Your task to perform on an android device: search for starred emails in the gmail app Image 0: 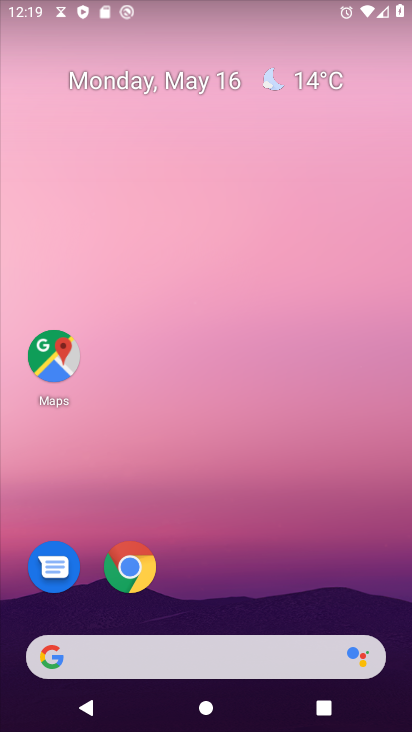
Step 0: drag from (252, 596) to (337, 23)
Your task to perform on an android device: search for starred emails in the gmail app Image 1: 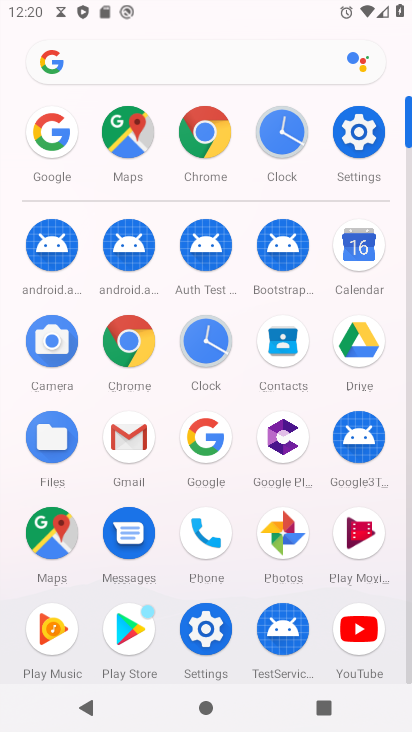
Step 1: click (123, 441)
Your task to perform on an android device: search for starred emails in the gmail app Image 2: 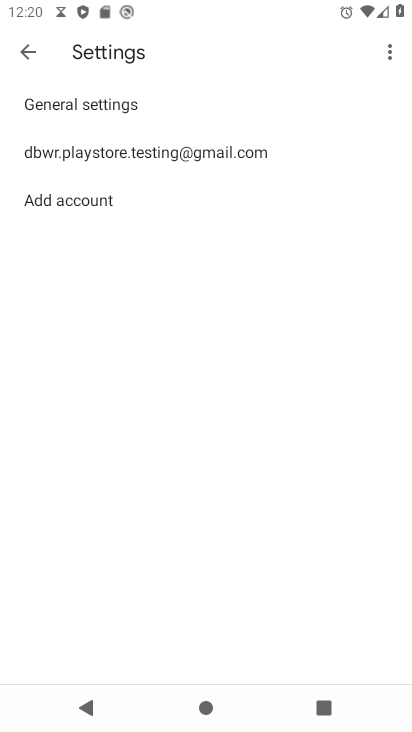
Step 2: click (22, 51)
Your task to perform on an android device: search for starred emails in the gmail app Image 3: 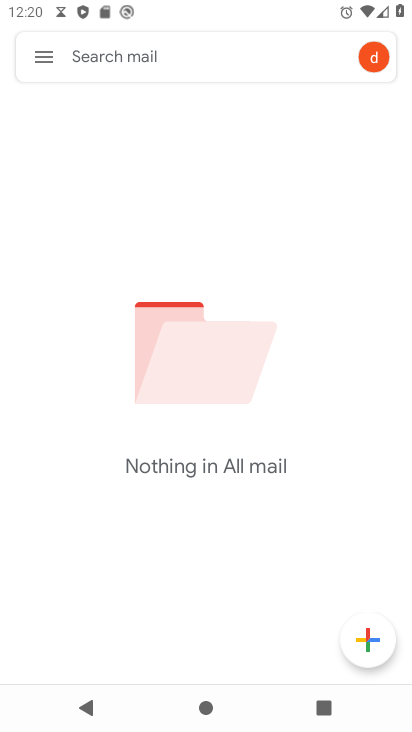
Step 3: click (44, 52)
Your task to perform on an android device: search for starred emails in the gmail app Image 4: 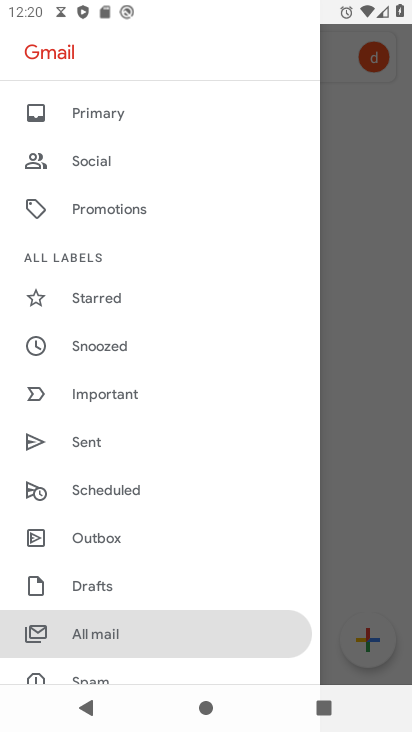
Step 4: click (137, 295)
Your task to perform on an android device: search for starred emails in the gmail app Image 5: 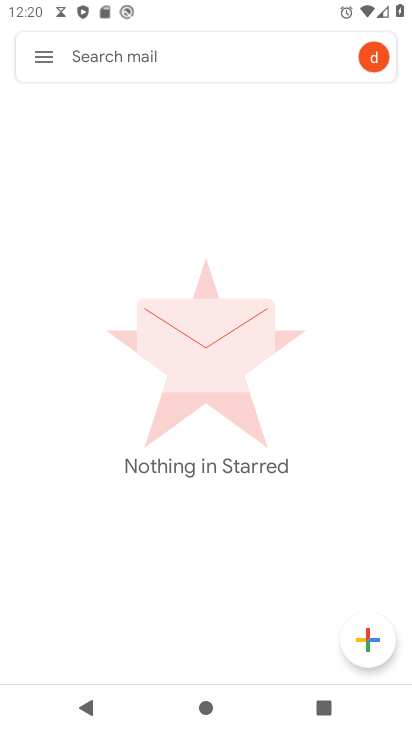
Step 5: task complete